Your task to perform on an android device: see sites visited before in the chrome app Image 0: 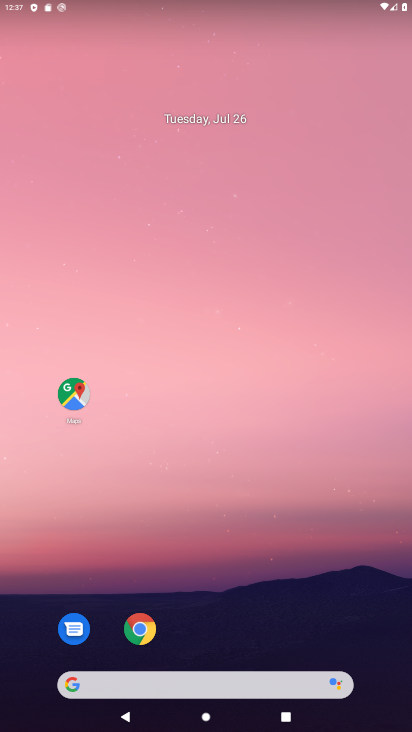
Step 0: click (133, 633)
Your task to perform on an android device: see sites visited before in the chrome app Image 1: 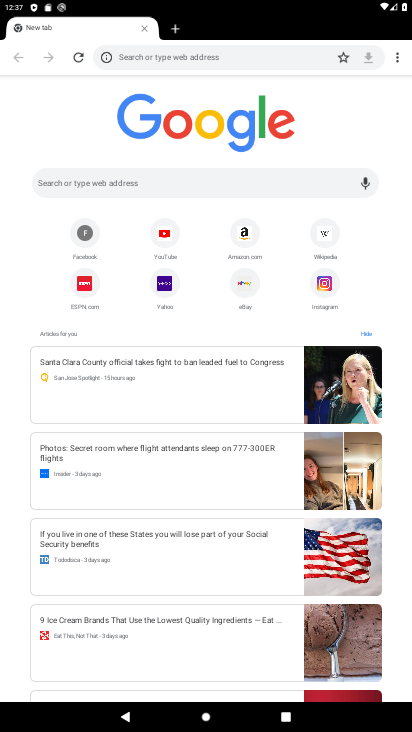
Step 1: click (396, 57)
Your task to perform on an android device: see sites visited before in the chrome app Image 2: 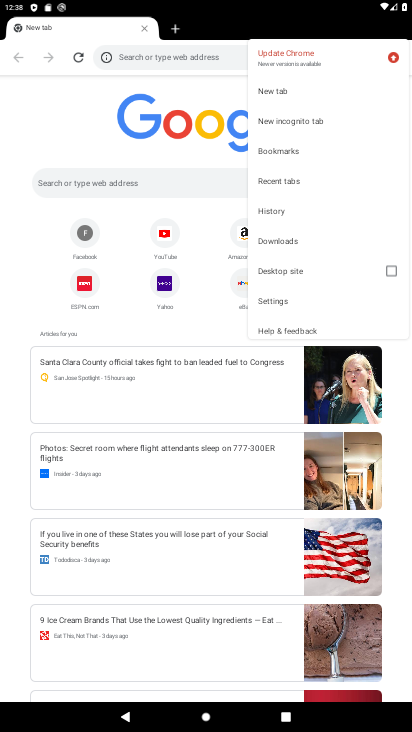
Step 2: click (282, 182)
Your task to perform on an android device: see sites visited before in the chrome app Image 3: 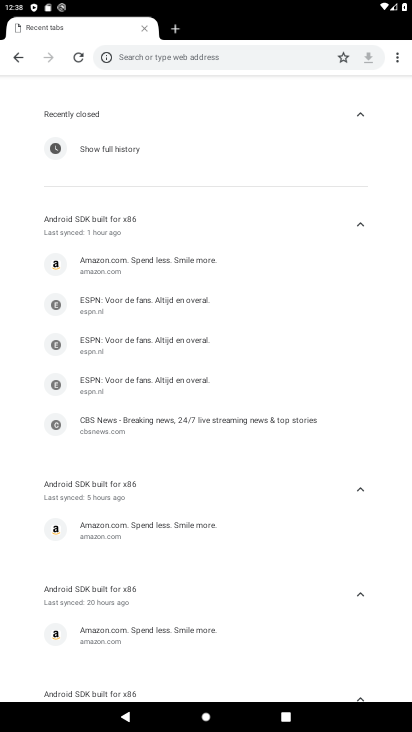
Step 3: task complete